Your task to perform on an android device: Go to Android settings Image 0: 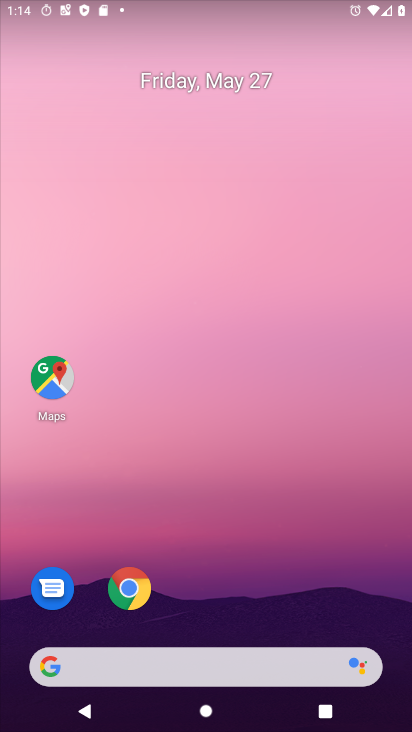
Step 0: drag from (214, 631) to (247, 84)
Your task to perform on an android device: Go to Android settings Image 1: 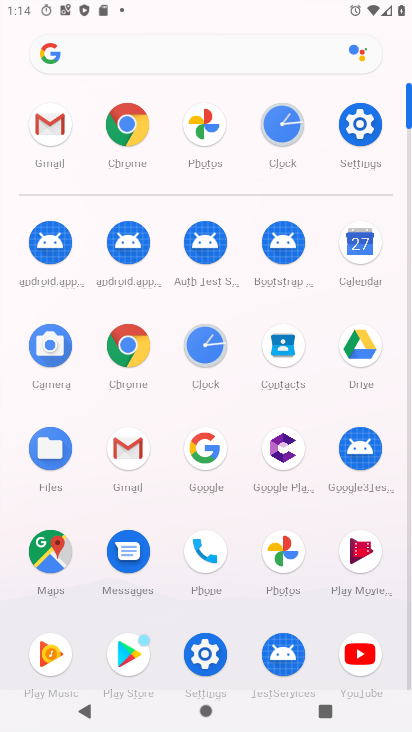
Step 1: click (363, 127)
Your task to perform on an android device: Go to Android settings Image 2: 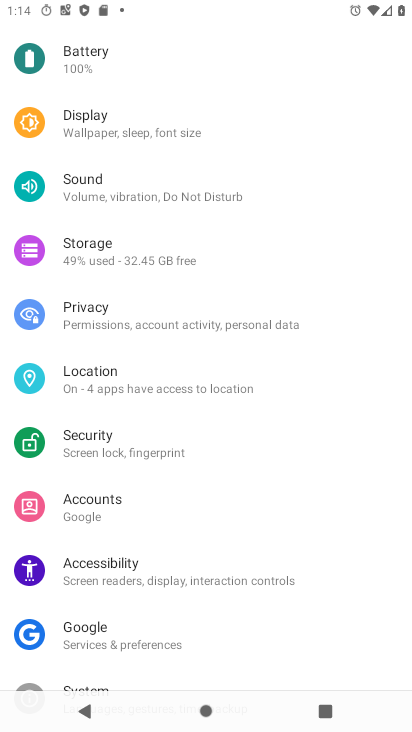
Step 2: drag from (193, 660) to (213, 127)
Your task to perform on an android device: Go to Android settings Image 3: 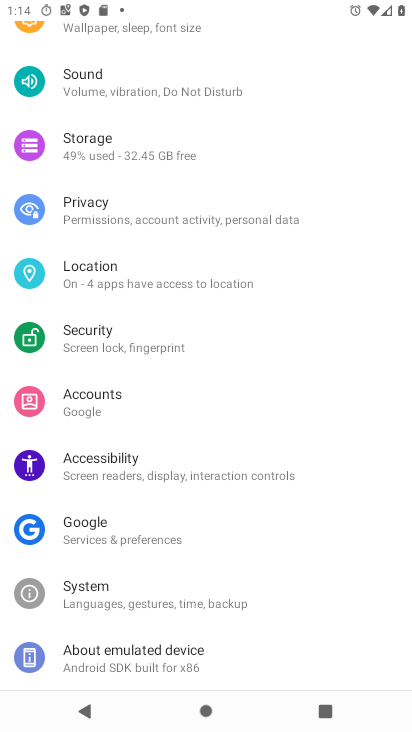
Step 3: click (209, 661)
Your task to perform on an android device: Go to Android settings Image 4: 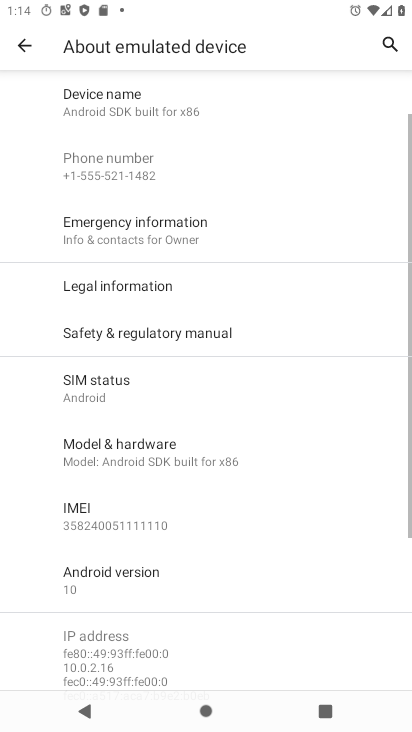
Step 4: click (130, 586)
Your task to perform on an android device: Go to Android settings Image 5: 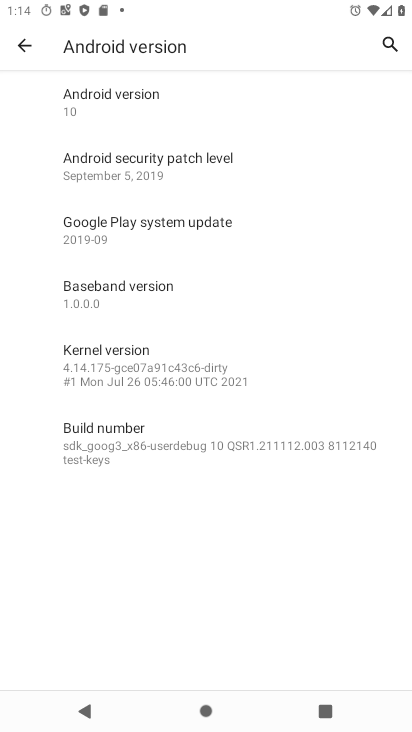
Step 5: task complete